Your task to perform on an android device: Open the web browser Image 0: 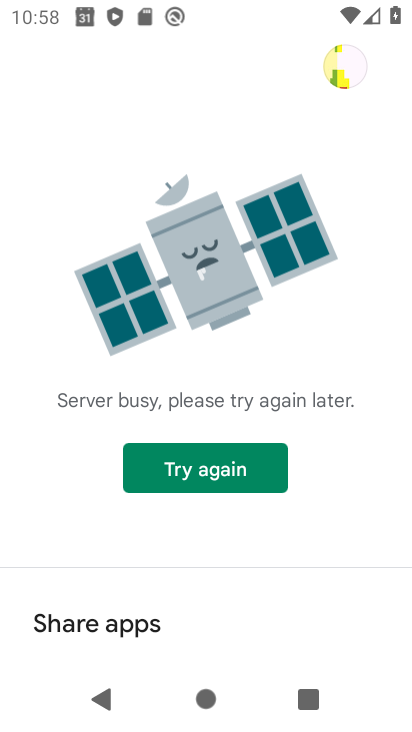
Step 0: press home button
Your task to perform on an android device: Open the web browser Image 1: 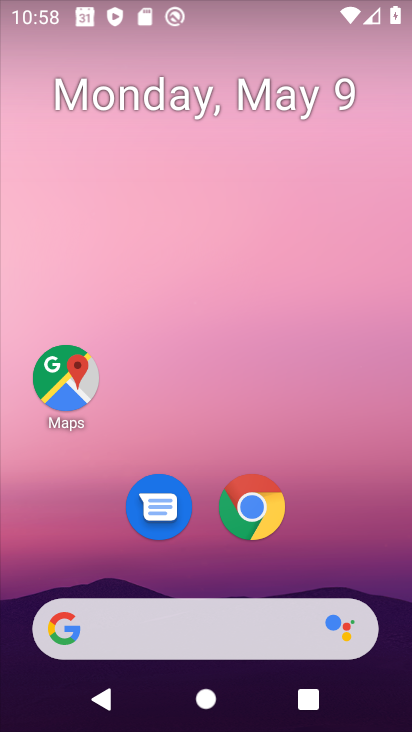
Step 1: click (259, 505)
Your task to perform on an android device: Open the web browser Image 2: 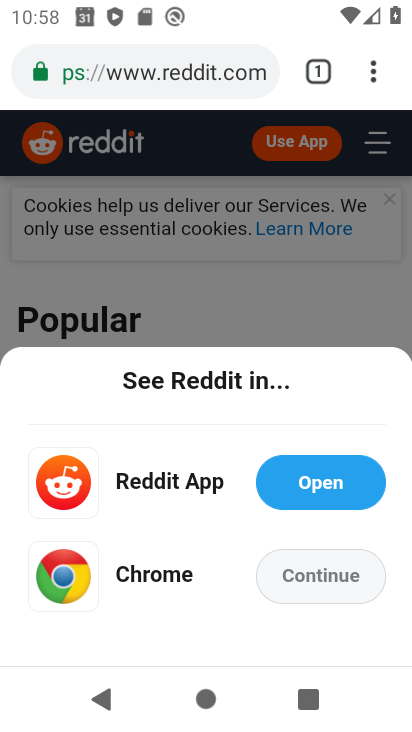
Step 2: click (310, 569)
Your task to perform on an android device: Open the web browser Image 3: 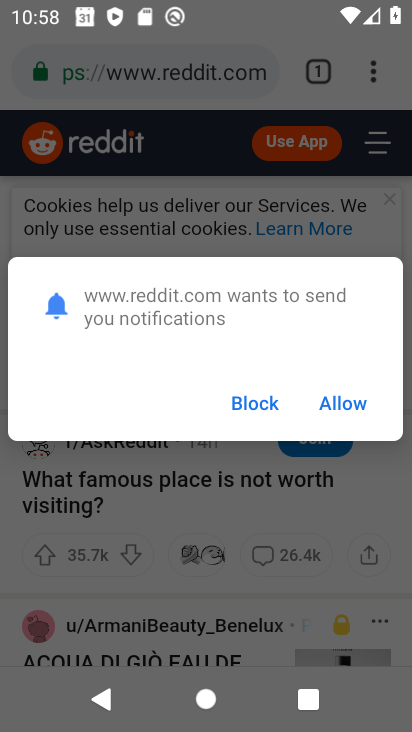
Step 3: click (353, 390)
Your task to perform on an android device: Open the web browser Image 4: 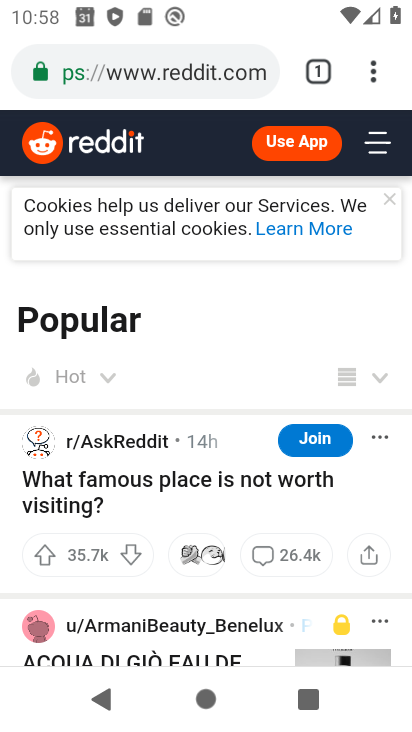
Step 4: task complete